Your task to perform on an android device: Check the news Image 0: 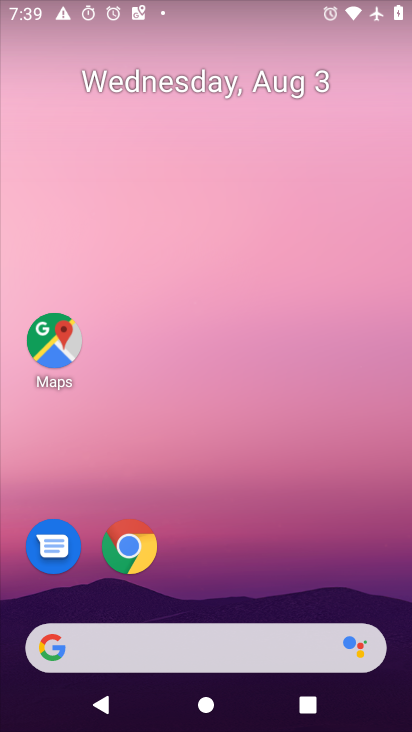
Step 0: press home button
Your task to perform on an android device: Check the news Image 1: 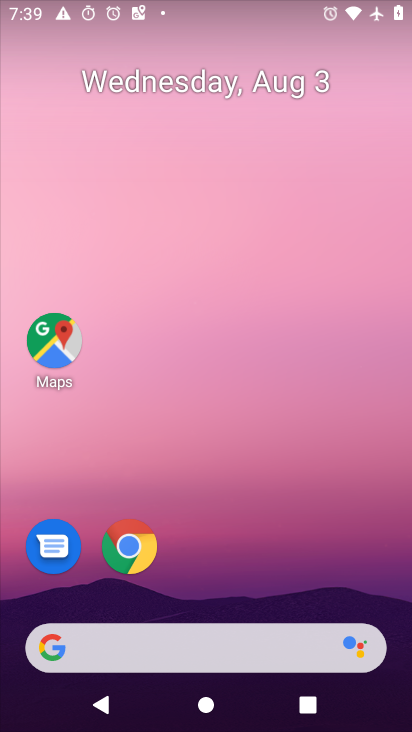
Step 1: click (51, 646)
Your task to perform on an android device: Check the news Image 2: 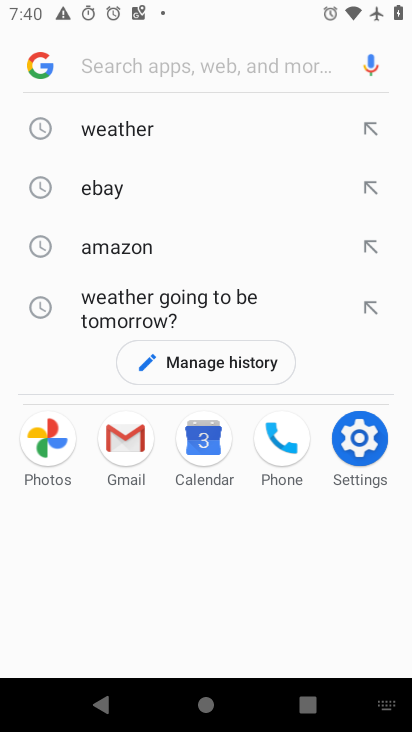
Step 2: type " news"
Your task to perform on an android device: Check the news Image 3: 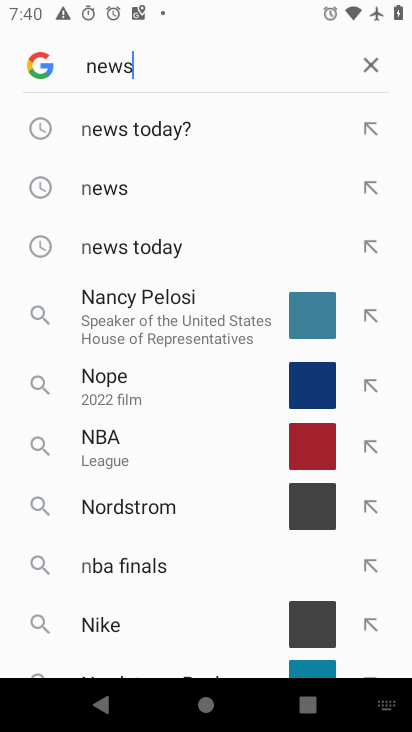
Step 3: press enter
Your task to perform on an android device: Check the news Image 4: 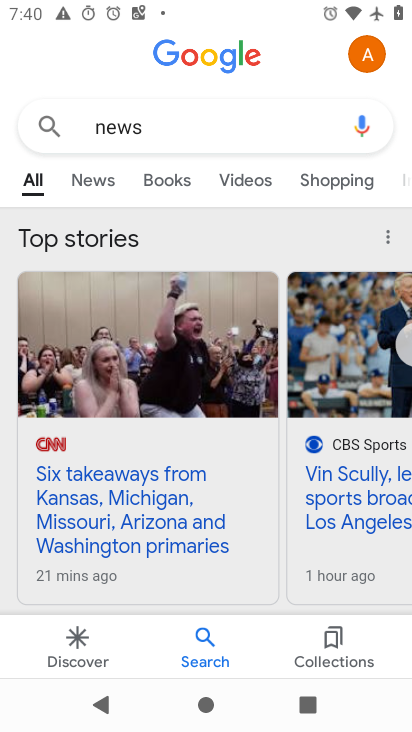
Step 4: task complete